Your task to perform on an android device: toggle sleep mode Image 0: 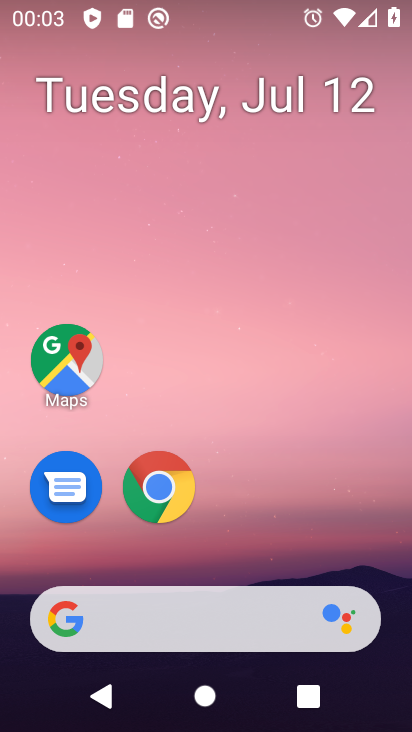
Step 0: drag from (343, 543) to (317, 212)
Your task to perform on an android device: toggle sleep mode Image 1: 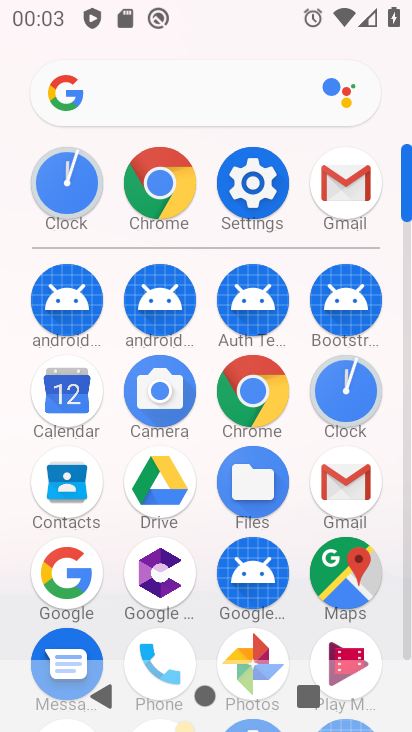
Step 1: click (255, 202)
Your task to perform on an android device: toggle sleep mode Image 2: 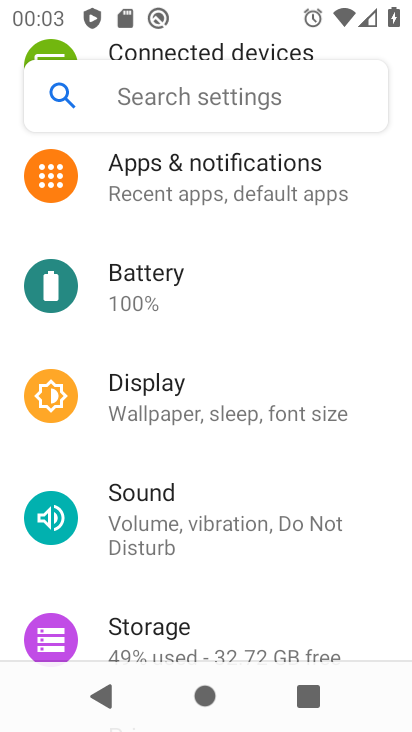
Step 2: drag from (356, 271) to (363, 362)
Your task to perform on an android device: toggle sleep mode Image 3: 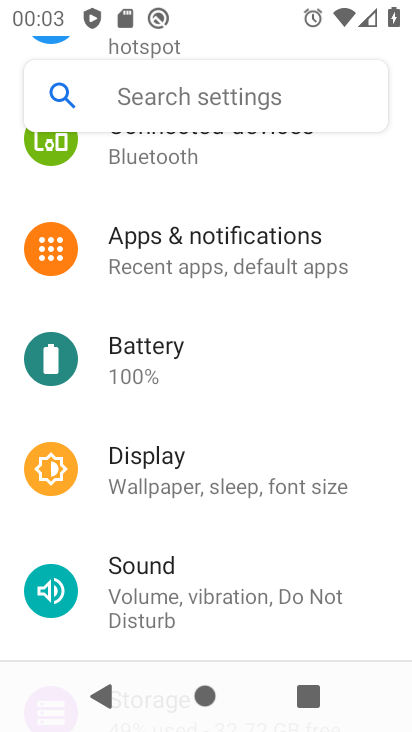
Step 3: drag from (369, 222) to (373, 335)
Your task to perform on an android device: toggle sleep mode Image 4: 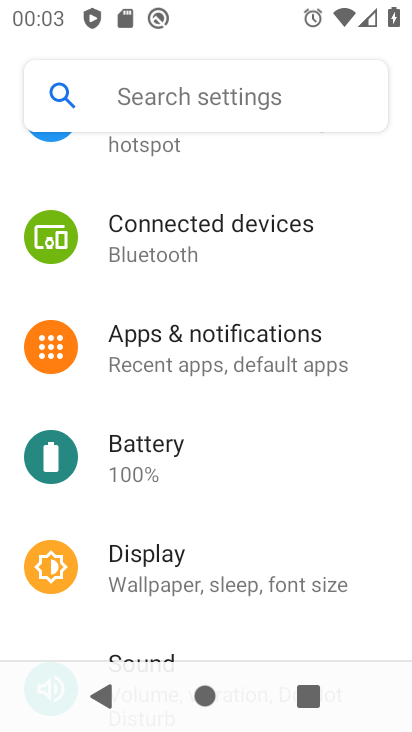
Step 4: drag from (363, 240) to (363, 360)
Your task to perform on an android device: toggle sleep mode Image 5: 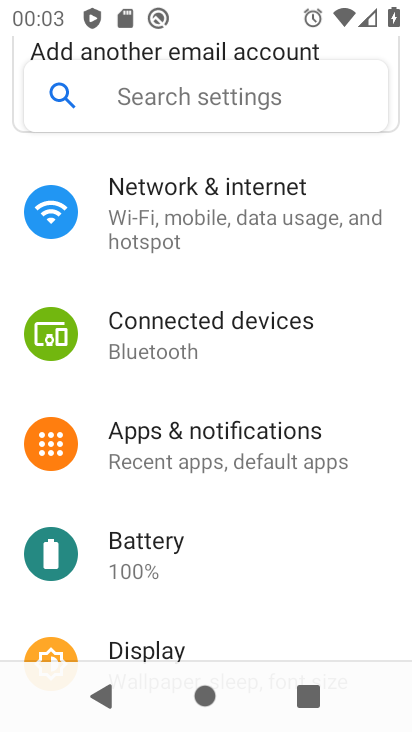
Step 5: drag from (361, 179) to (367, 447)
Your task to perform on an android device: toggle sleep mode Image 6: 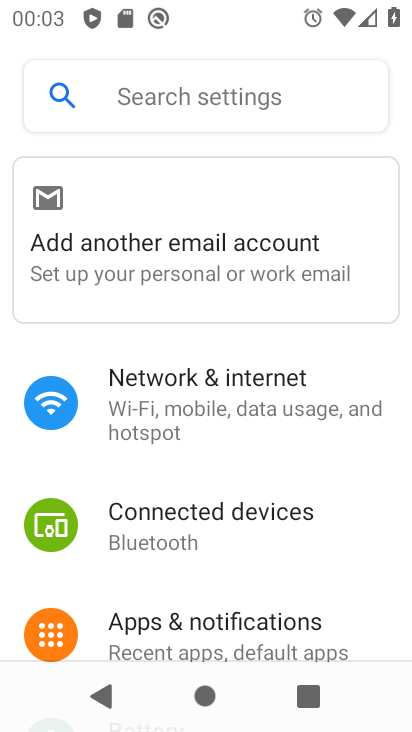
Step 6: drag from (352, 483) to (351, 388)
Your task to perform on an android device: toggle sleep mode Image 7: 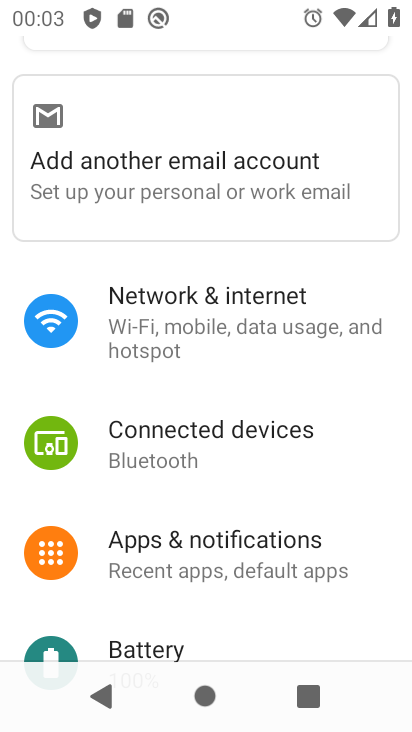
Step 7: drag from (348, 453) to (347, 374)
Your task to perform on an android device: toggle sleep mode Image 8: 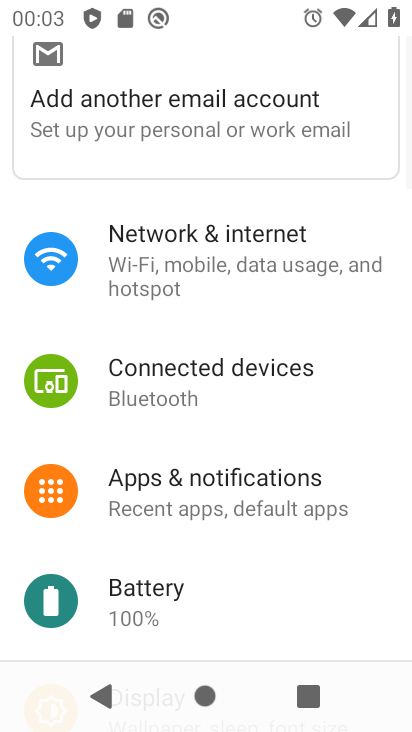
Step 8: drag from (346, 425) to (347, 358)
Your task to perform on an android device: toggle sleep mode Image 9: 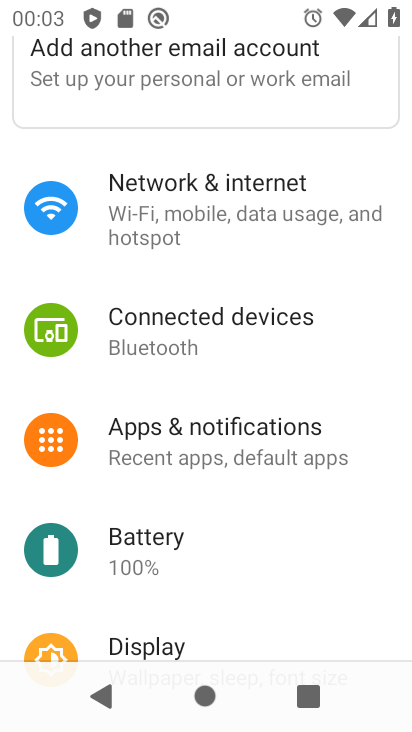
Step 9: drag from (343, 401) to (352, 337)
Your task to perform on an android device: toggle sleep mode Image 10: 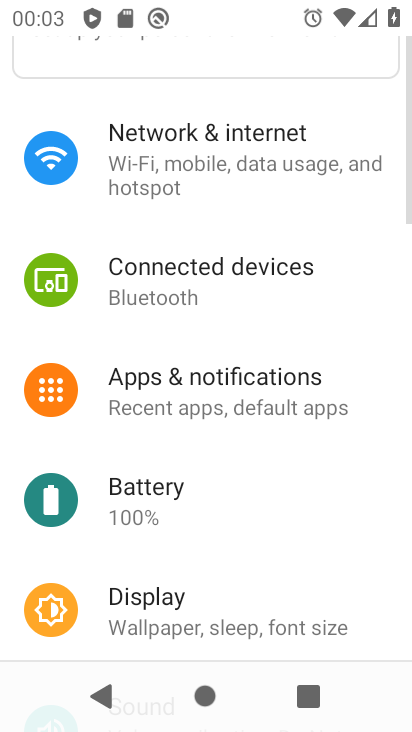
Step 10: drag from (354, 383) to (355, 319)
Your task to perform on an android device: toggle sleep mode Image 11: 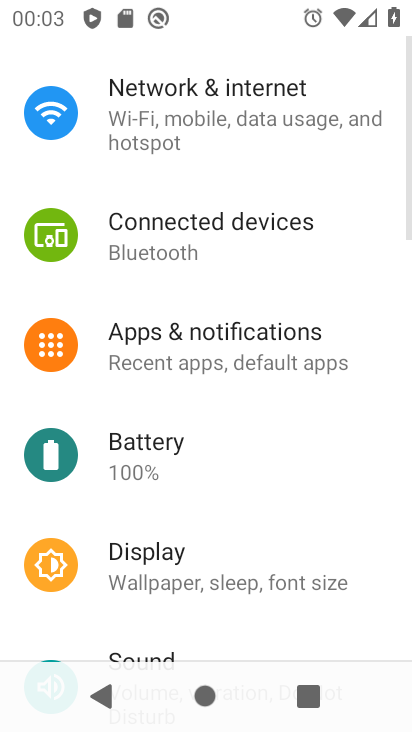
Step 11: drag from (355, 379) to (353, 279)
Your task to perform on an android device: toggle sleep mode Image 12: 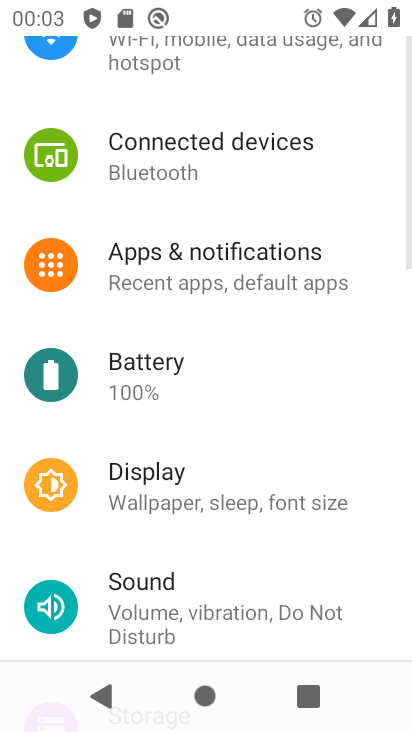
Step 12: drag from (343, 344) to (349, 275)
Your task to perform on an android device: toggle sleep mode Image 13: 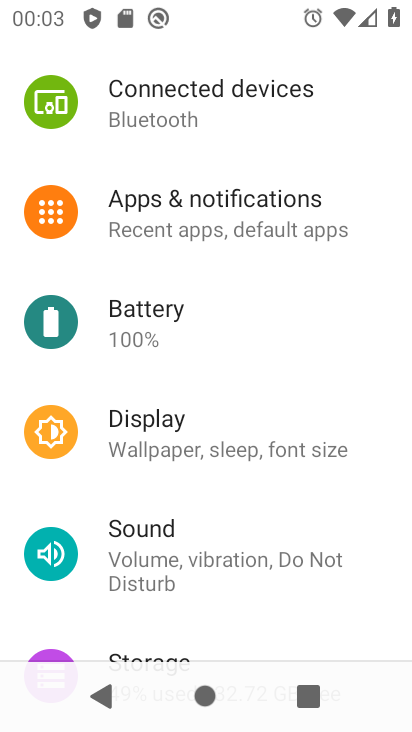
Step 13: drag from (341, 364) to (337, 269)
Your task to perform on an android device: toggle sleep mode Image 14: 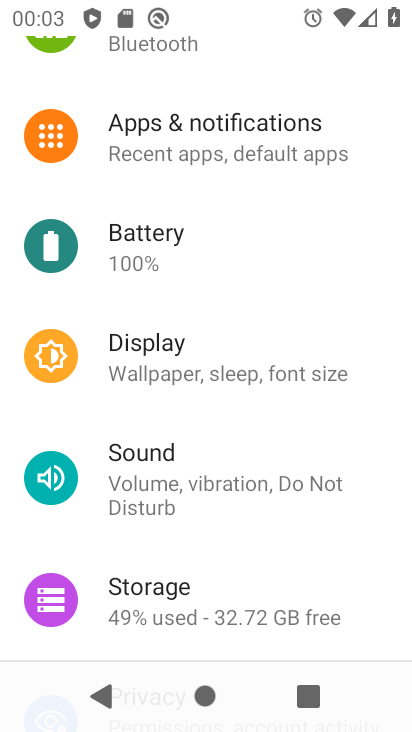
Step 14: click (294, 370)
Your task to perform on an android device: toggle sleep mode Image 15: 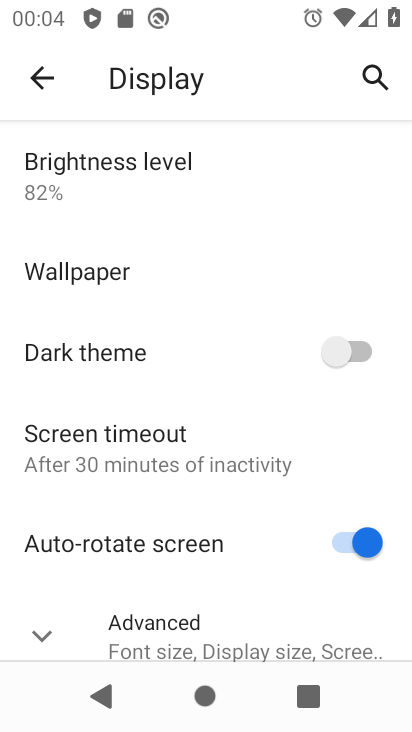
Step 15: drag from (277, 510) to (278, 337)
Your task to perform on an android device: toggle sleep mode Image 16: 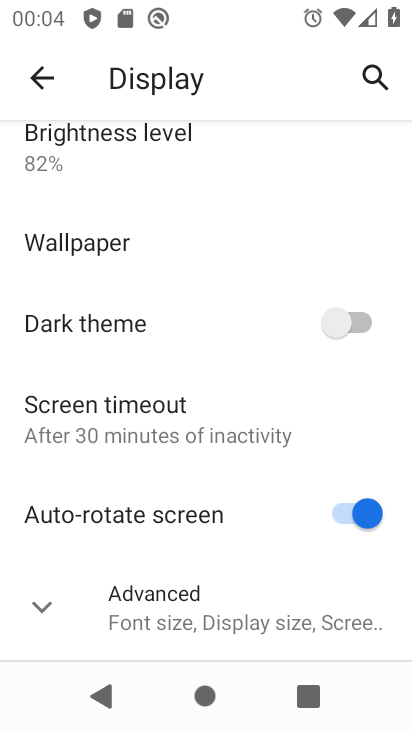
Step 16: click (217, 617)
Your task to perform on an android device: toggle sleep mode Image 17: 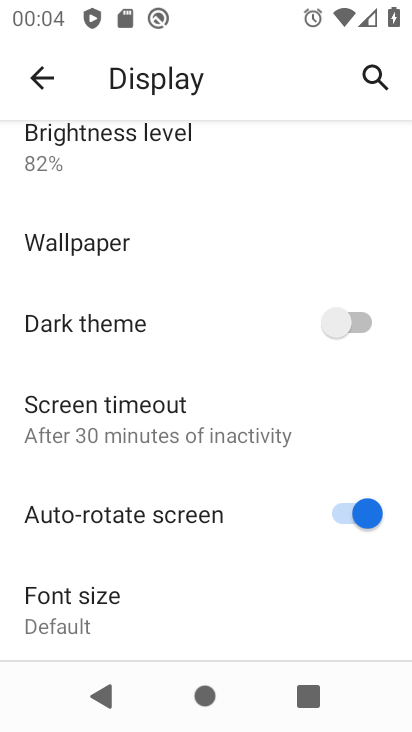
Step 17: task complete